Your task to perform on an android device: clear all cookies in the chrome app Image 0: 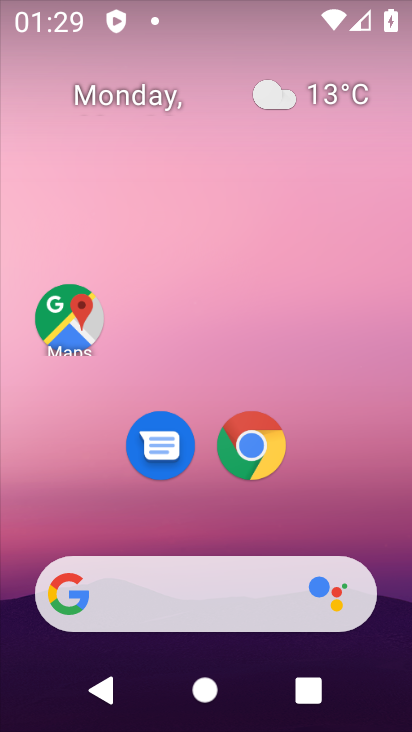
Step 0: drag from (289, 377) to (262, 23)
Your task to perform on an android device: clear all cookies in the chrome app Image 1: 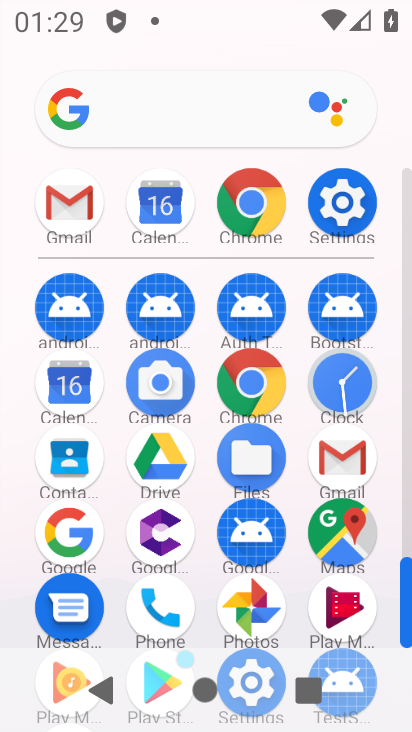
Step 1: click (247, 221)
Your task to perform on an android device: clear all cookies in the chrome app Image 2: 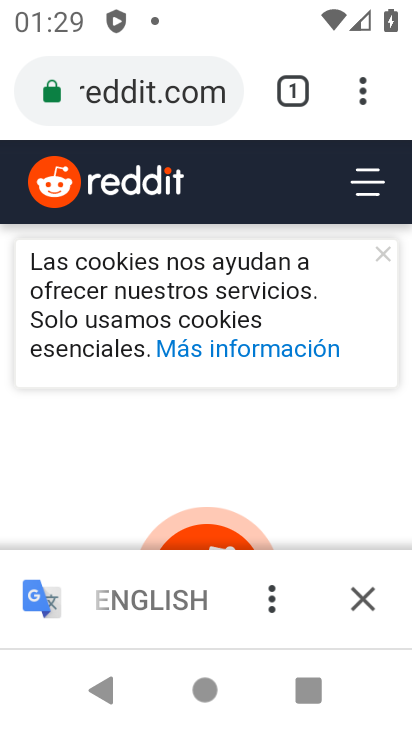
Step 2: click (360, 92)
Your task to perform on an android device: clear all cookies in the chrome app Image 3: 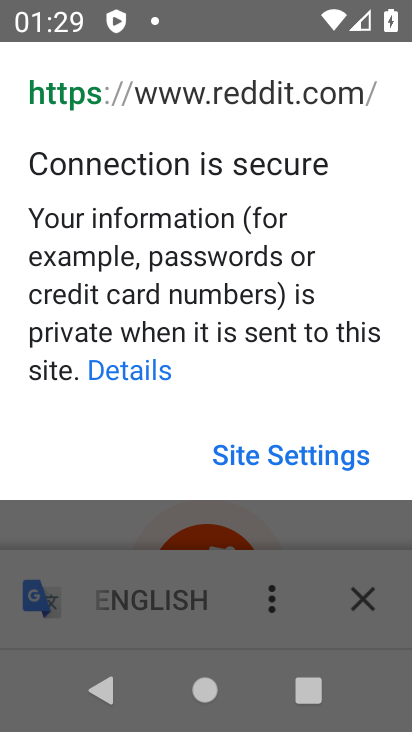
Step 3: click (115, 547)
Your task to perform on an android device: clear all cookies in the chrome app Image 4: 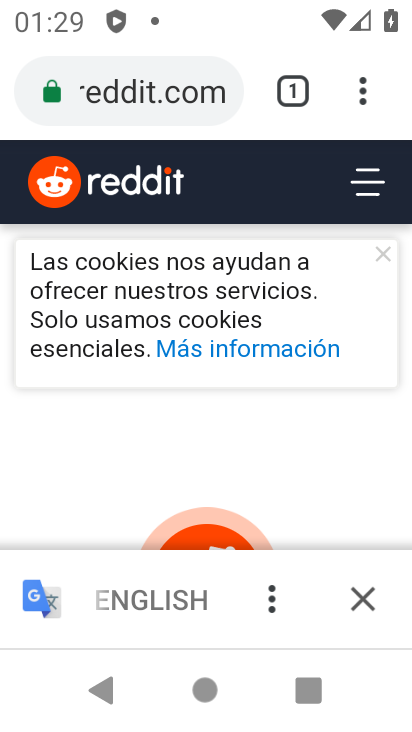
Step 4: click (364, 87)
Your task to perform on an android device: clear all cookies in the chrome app Image 5: 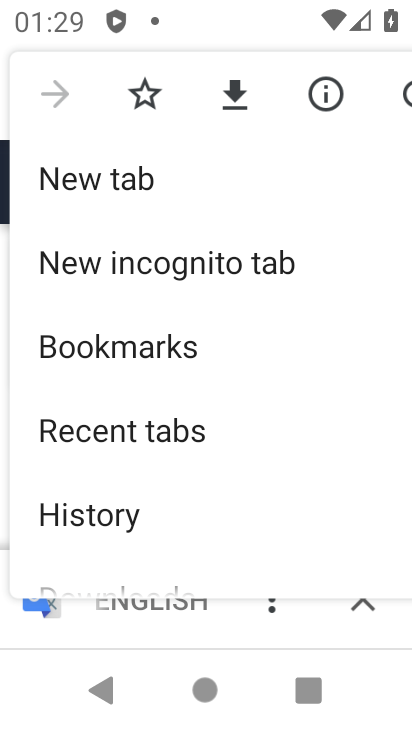
Step 5: drag from (146, 542) to (124, 109)
Your task to perform on an android device: clear all cookies in the chrome app Image 6: 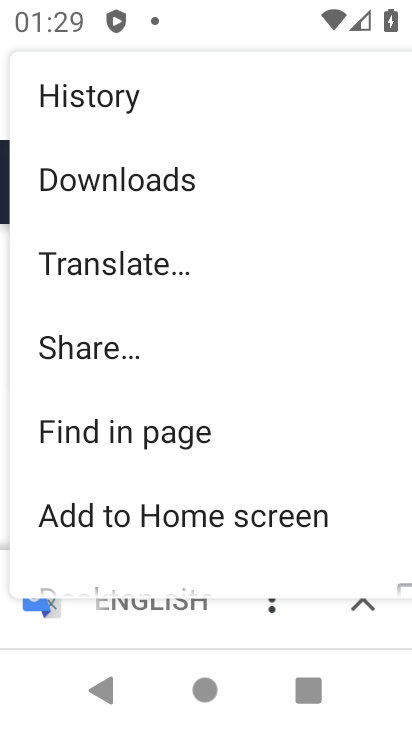
Step 6: drag from (128, 544) to (203, 154)
Your task to perform on an android device: clear all cookies in the chrome app Image 7: 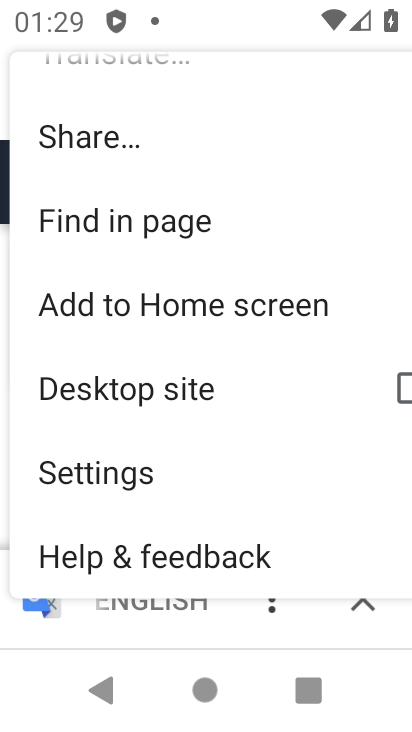
Step 7: press back button
Your task to perform on an android device: clear all cookies in the chrome app Image 8: 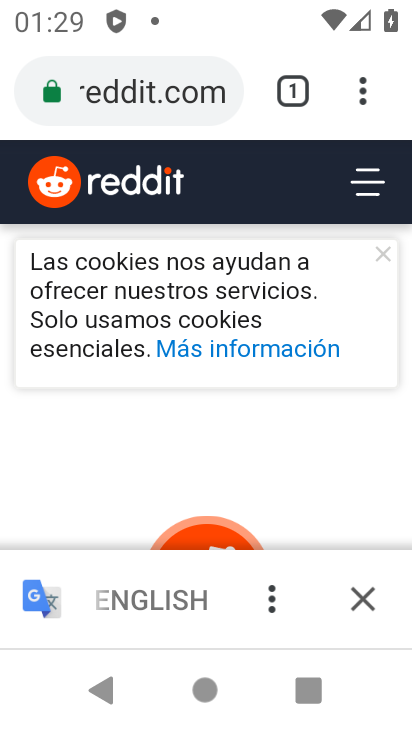
Step 8: click (363, 90)
Your task to perform on an android device: clear all cookies in the chrome app Image 9: 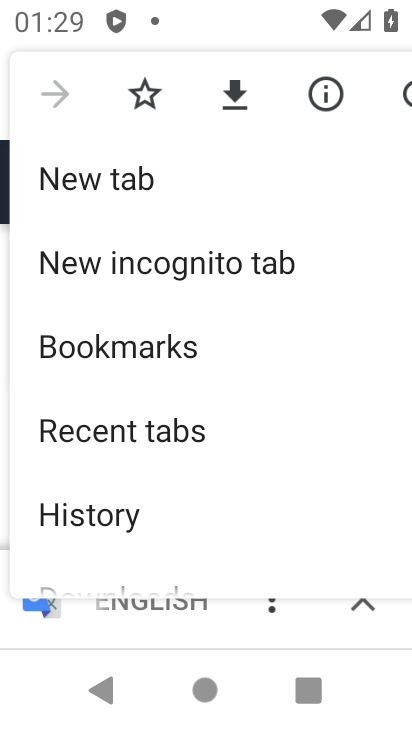
Step 9: drag from (119, 510) to (128, 45)
Your task to perform on an android device: clear all cookies in the chrome app Image 10: 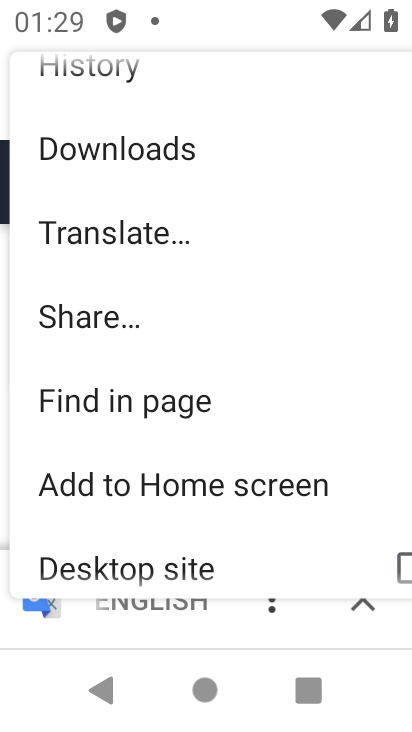
Step 10: drag from (149, 509) to (147, 107)
Your task to perform on an android device: clear all cookies in the chrome app Image 11: 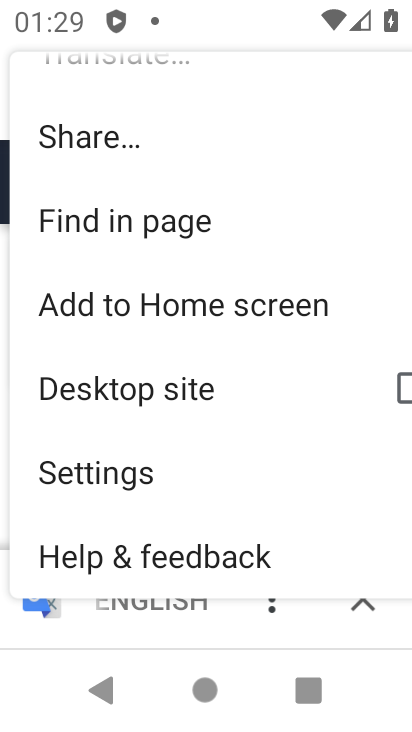
Step 11: click (107, 465)
Your task to perform on an android device: clear all cookies in the chrome app Image 12: 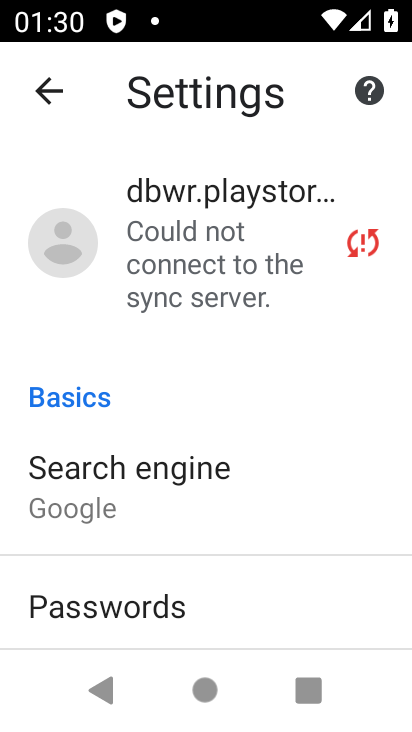
Step 12: press back button
Your task to perform on an android device: clear all cookies in the chrome app Image 13: 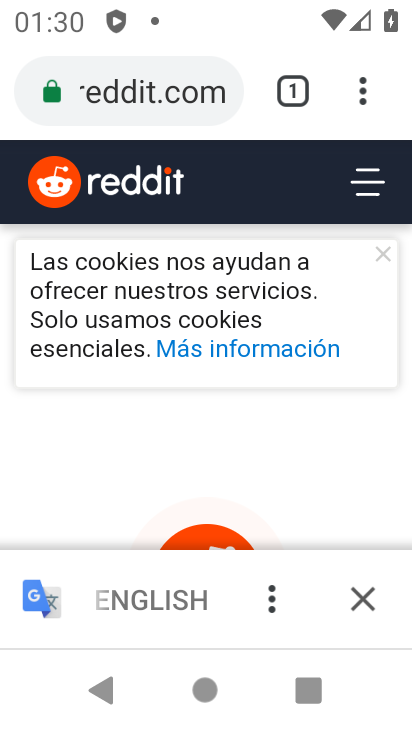
Step 13: click (364, 91)
Your task to perform on an android device: clear all cookies in the chrome app Image 14: 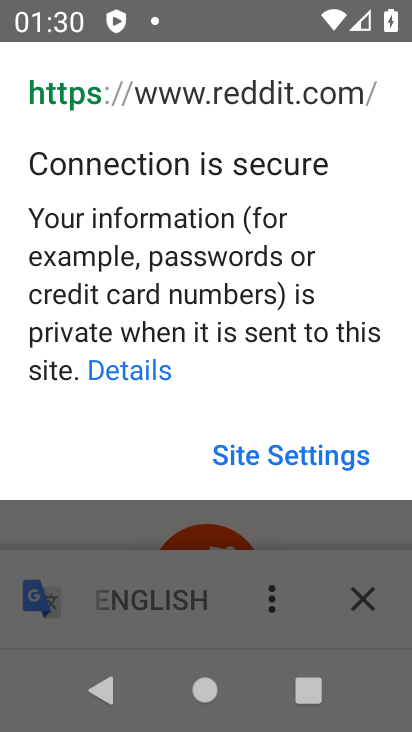
Step 14: click (135, 523)
Your task to perform on an android device: clear all cookies in the chrome app Image 15: 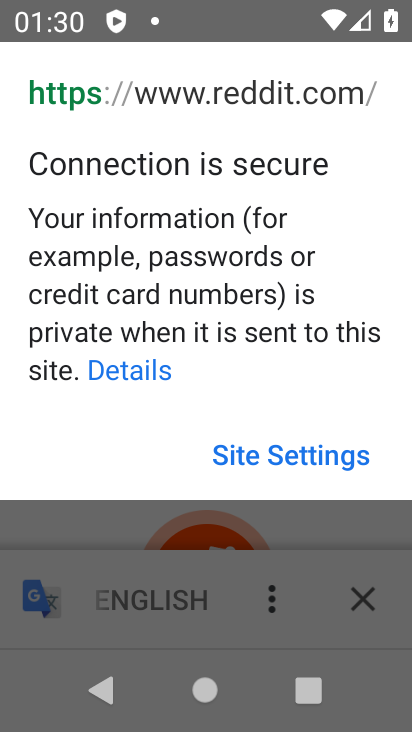
Step 15: click (100, 553)
Your task to perform on an android device: clear all cookies in the chrome app Image 16: 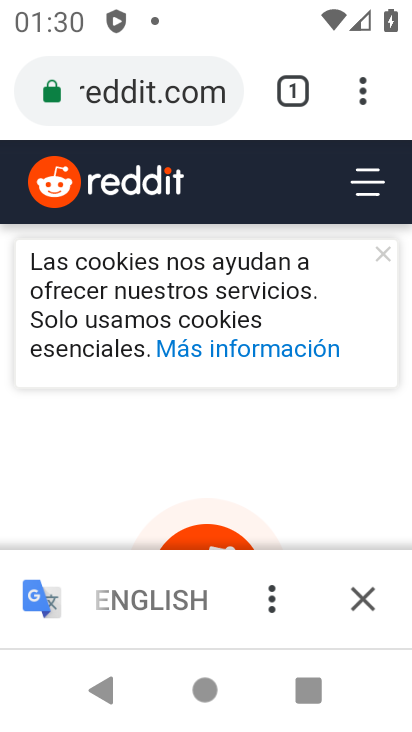
Step 16: click (366, 83)
Your task to perform on an android device: clear all cookies in the chrome app Image 17: 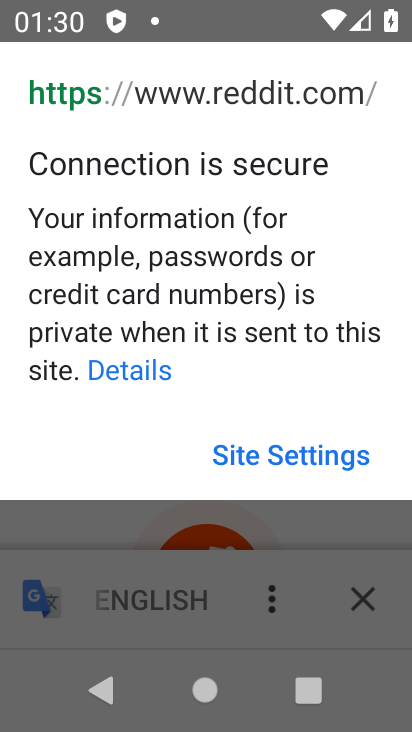
Step 17: click (106, 537)
Your task to perform on an android device: clear all cookies in the chrome app Image 18: 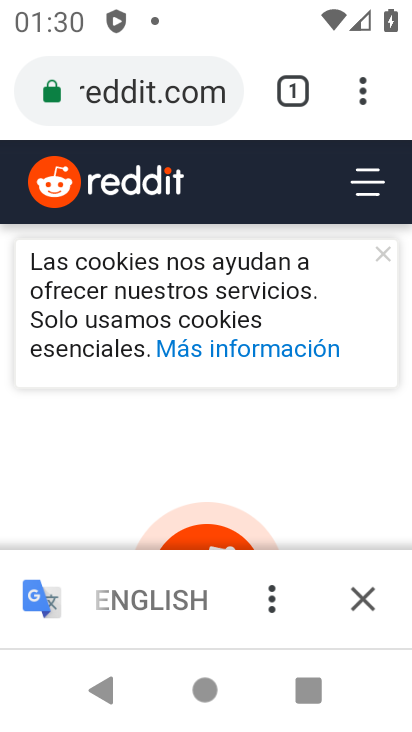
Step 18: click (365, 93)
Your task to perform on an android device: clear all cookies in the chrome app Image 19: 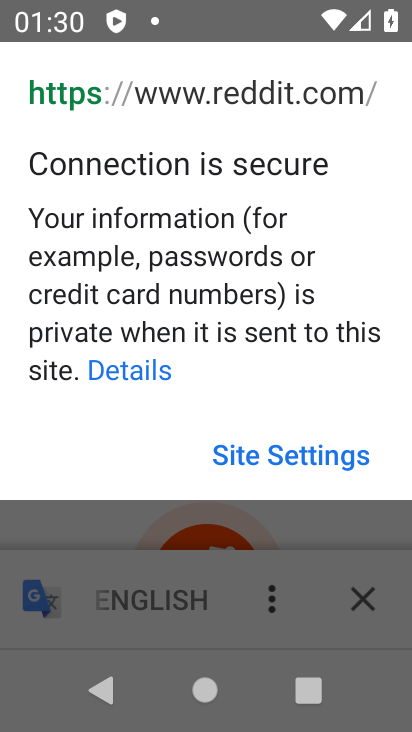
Step 19: click (107, 513)
Your task to perform on an android device: clear all cookies in the chrome app Image 20: 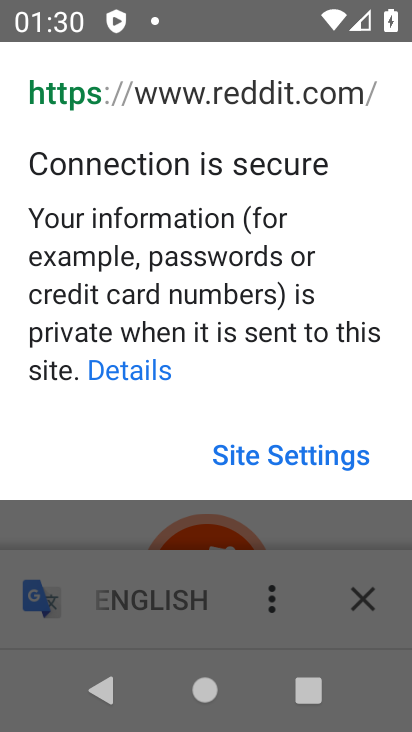
Step 20: click (128, 518)
Your task to perform on an android device: clear all cookies in the chrome app Image 21: 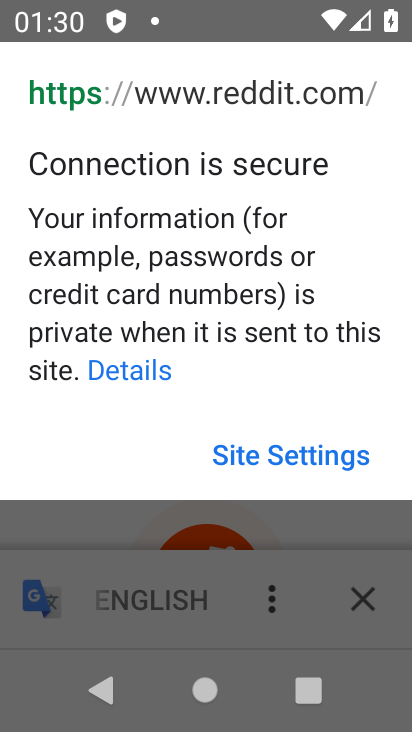
Step 21: click (366, 626)
Your task to perform on an android device: clear all cookies in the chrome app Image 22: 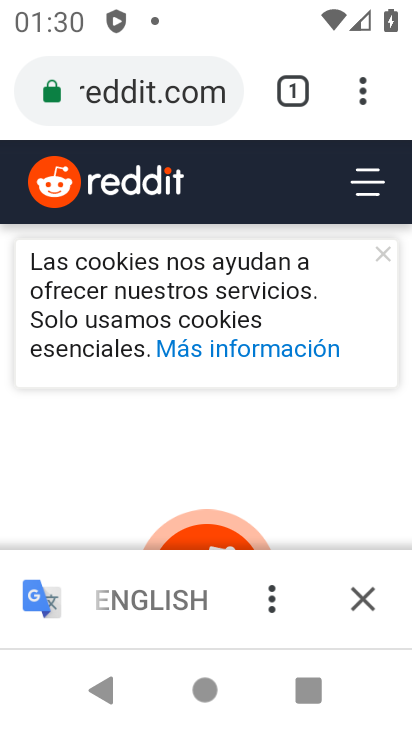
Step 22: click (362, 88)
Your task to perform on an android device: clear all cookies in the chrome app Image 23: 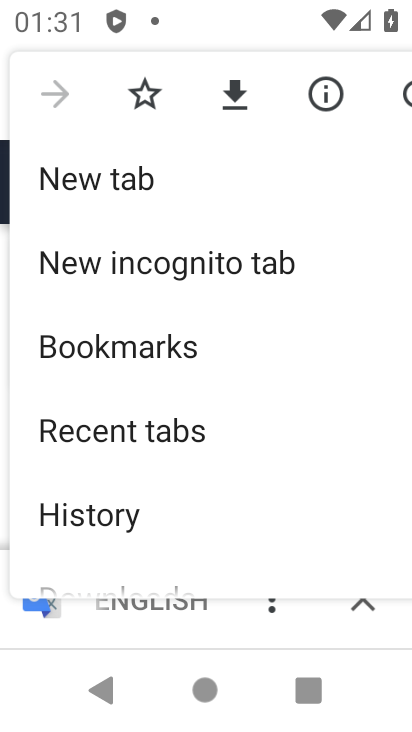
Step 23: drag from (161, 487) to (89, 550)
Your task to perform on an android device: clear all cookies in the chrome app Image 24: 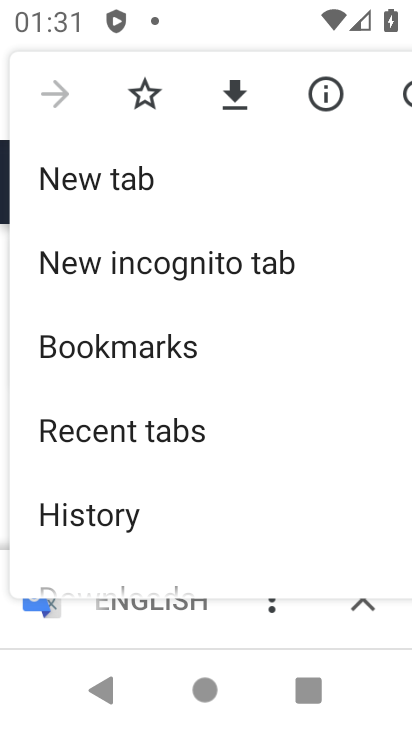
Step 24: click (97, 529)
Your task to perform on an android device: clear all cookies in the chrome app Image 25: 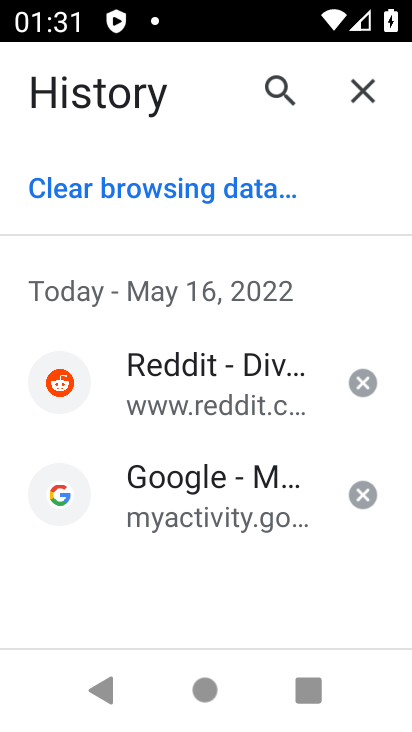
Step 25: click (172, 172)
Your task to perform on an android device: clear all cookies in the chrome app Image 26: 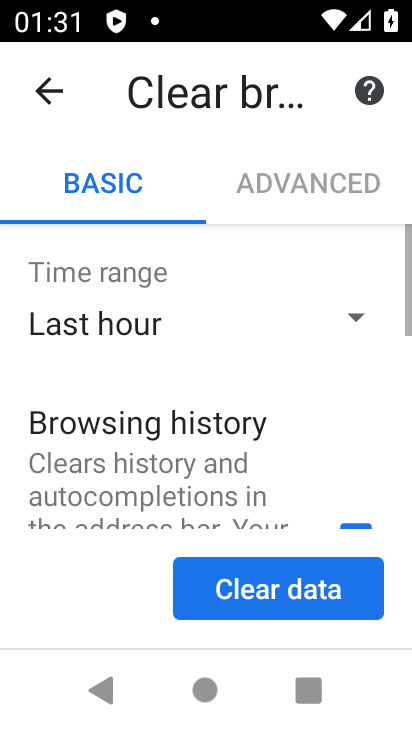
Step 26: drag from (184, 488) to (269, 251)
Your task to perform on an android device: clear all cookies in the chrome app Image 27: 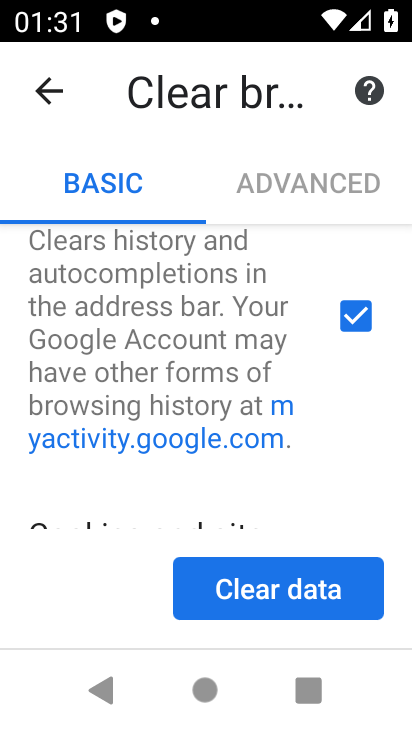
Step 27: click (226, 503)
Your task to perform on an android device: clear all cookies in the chrome app Image 28: 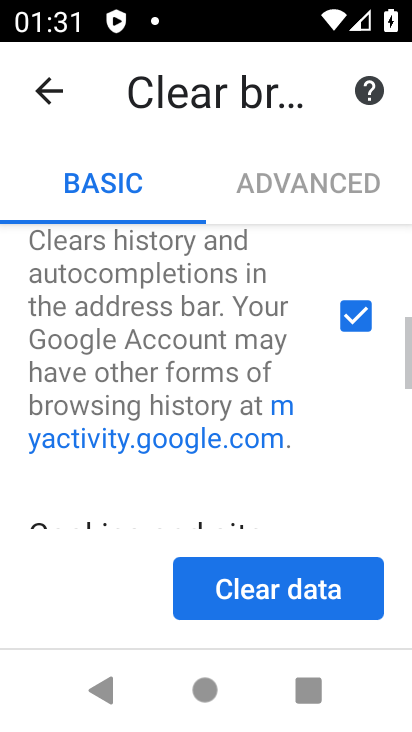
Step 28: drag from (228, 501) to (256, 248)
Your task to perform on an android device: clear all cookies in the chrome app Image 29: 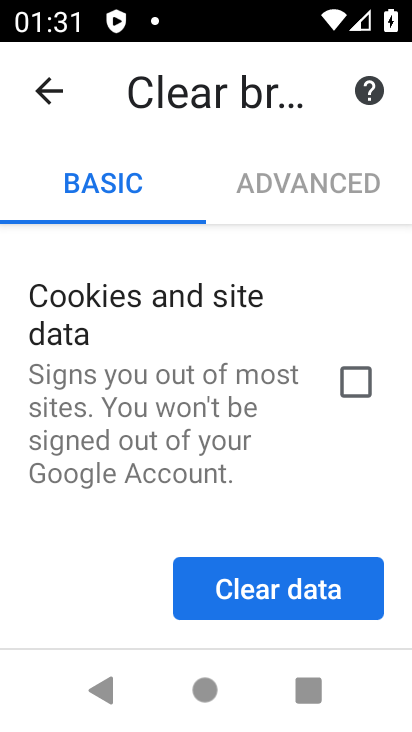
Step 29: click (348, 394)
Your task to perform on an android device: clear all cookies in the chrome app Image 30: 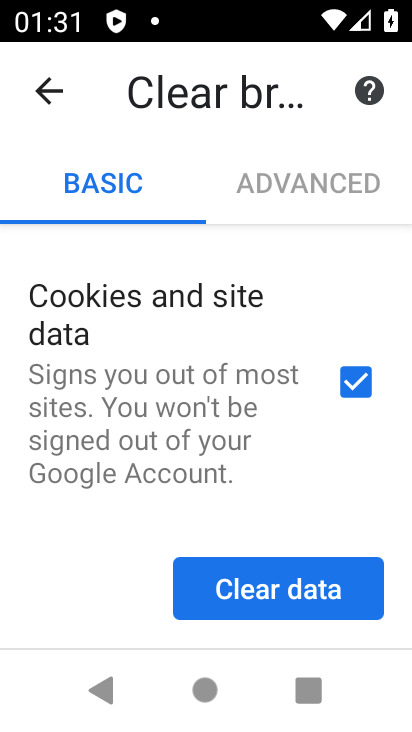
Step 30: drag from (156, 261) to (150, 535)
Your task to perform on an android device: clear all cookies in the chrome app Image 31: 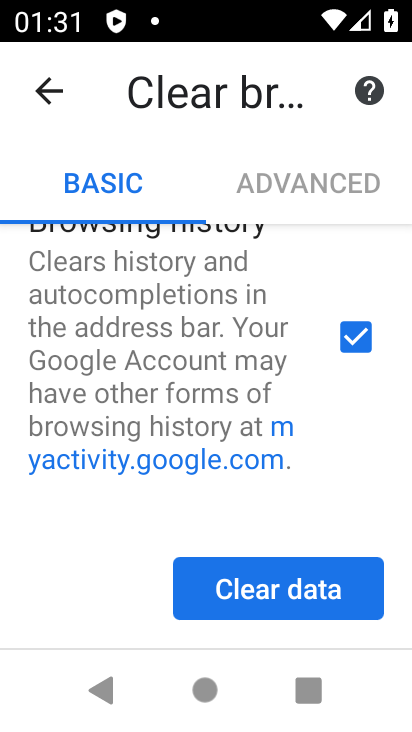
Step 31: drag from (189, 361) to (149, 554)
Your task to perform on an android device: clear all cookies in the chrome app Image 32: 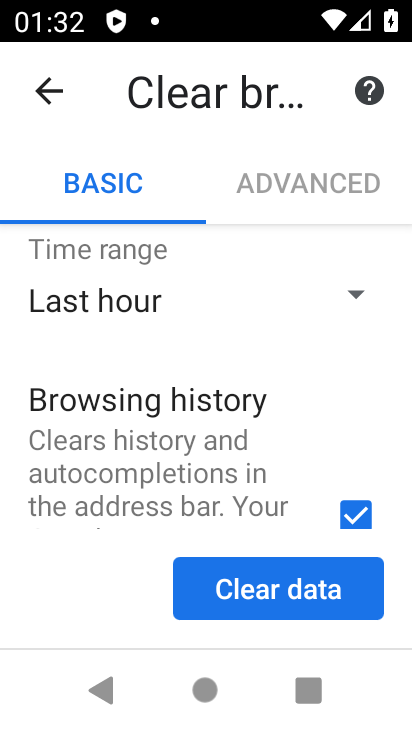
Step 32: click (354, 524)
Your task to perform on an android device: clear all cookies in the chrome app Image 33: 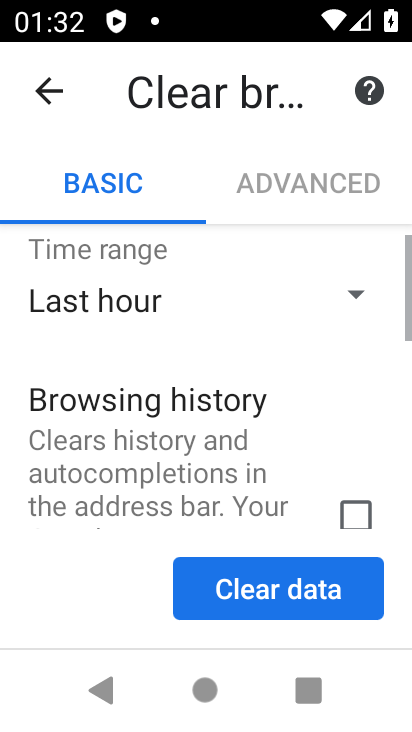
Step 33: drag from (244, 465) to (234, 236)
Your task to perform on an android device: clear all cookies in the chrome app Image 34: 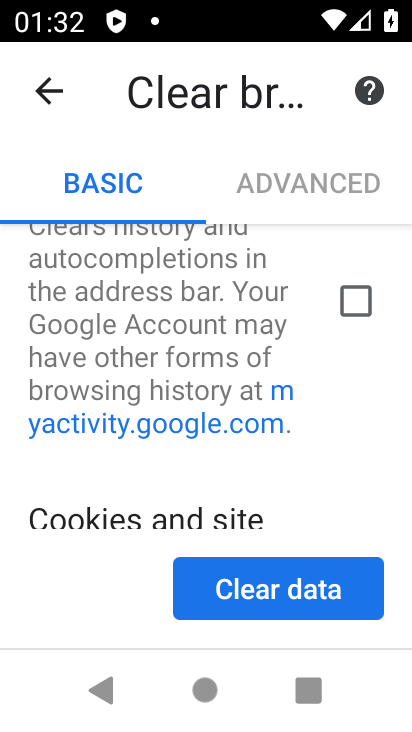
Step 34: click (251, 298)
Your task to perform on an android device: clear all cookies in the chrome app Image 35: 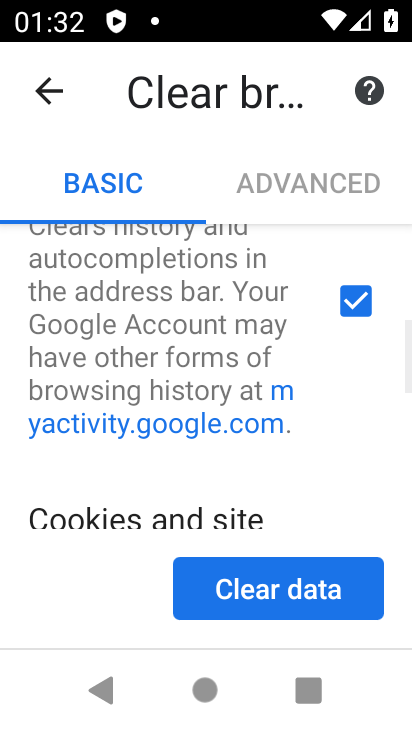
Step 35: click (358, 306)
Your task to perform on an android device: clear all cookies in the chrome app Image 36: 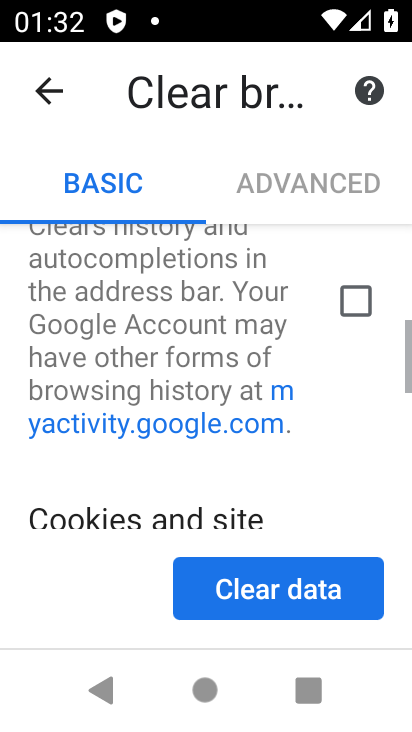
Step 36: drag from (247, 504) to (267, 198)
Your task to perform on an android device: clear all cookies in the chrome app Image 37: 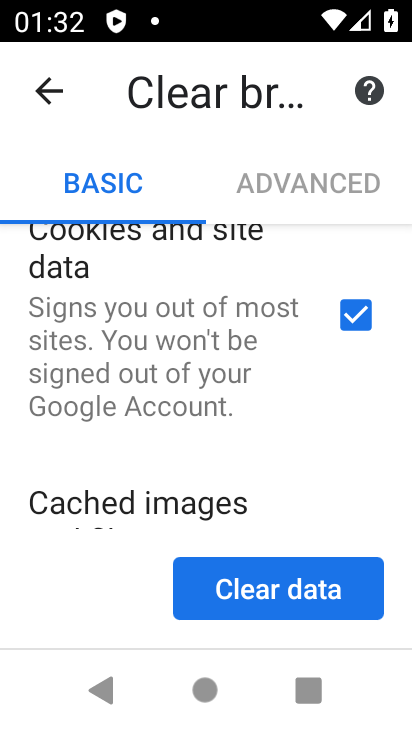
Step 37: drag from (221, 490) to (272, 123)
Your task to perform on an android device: clear all cookies in the chrome app Image 38: 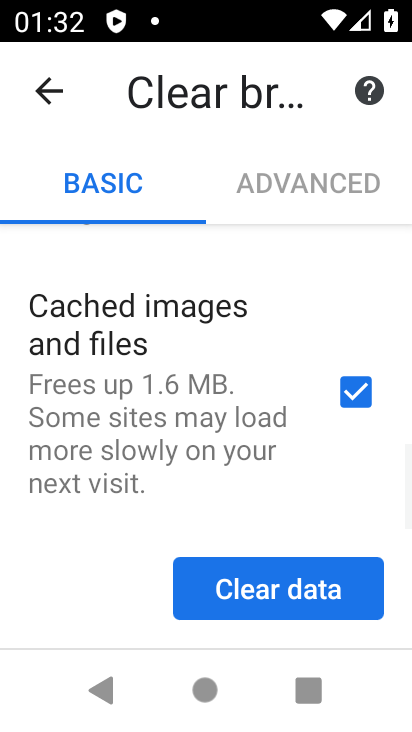
Step 38: click (356, 404)
Your task to perform on an android device: clear all cookies in the chrome app Image 39: 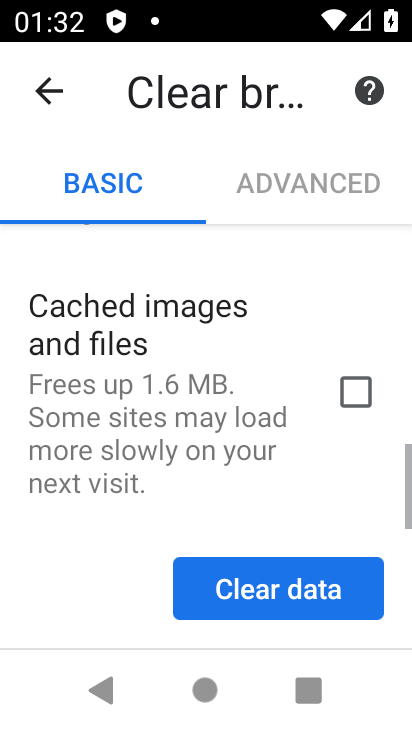
Step 39: click (264, 610)
Your task to perform on an android device: clear all cookies in the chrome app Image 40: 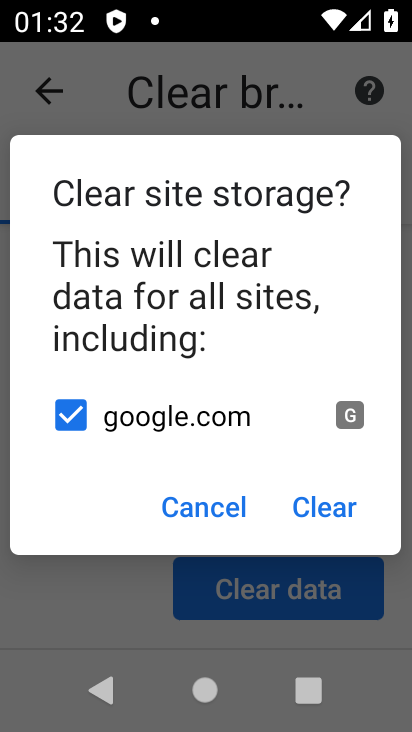
Step 40: click (341, 494)
Your task to perform on an android device: clear all cookies in the chrome app Image 41: 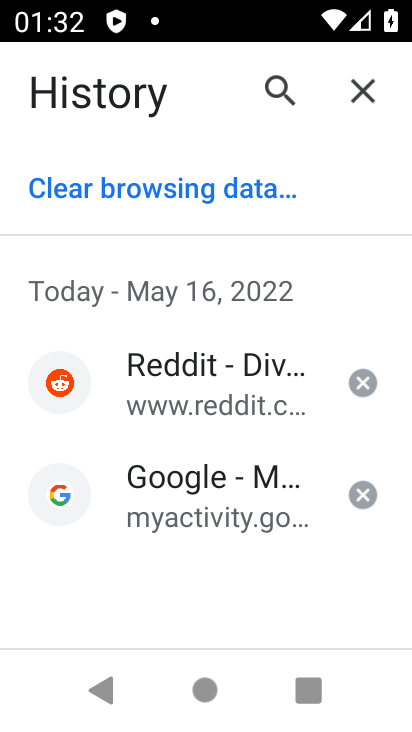
Step 41: task complete